Your task to perform on an android device: toggle sleep mode Image 0: 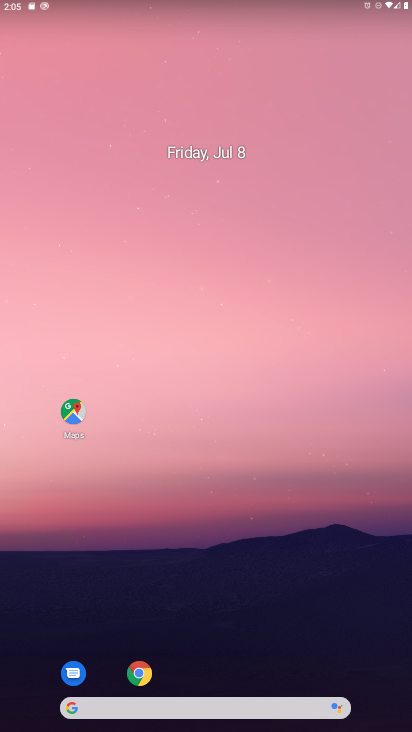
Step 0: drag from (389, 693) to (331, 193)
Your task to perform on an android device: toggle sleep mode Image 1: 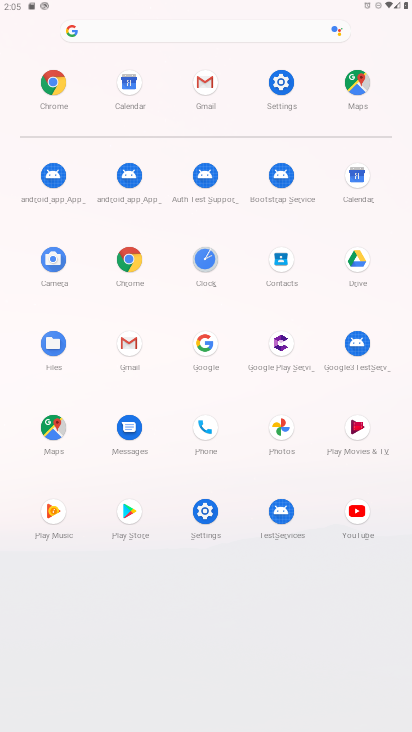
Step 1: click (284, 85)
Your task to perform on an android device: toggle sleep mode Image 2: 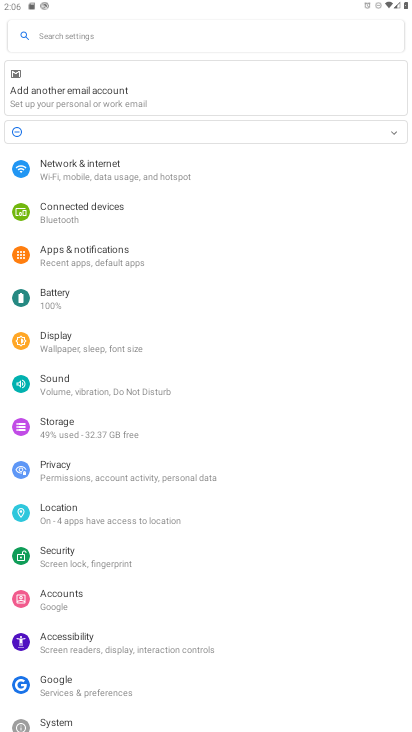
Step 2: drag from (289, 656) to (279, 356)
Your task to perform on an android device: toggle sleep mode Image 3: 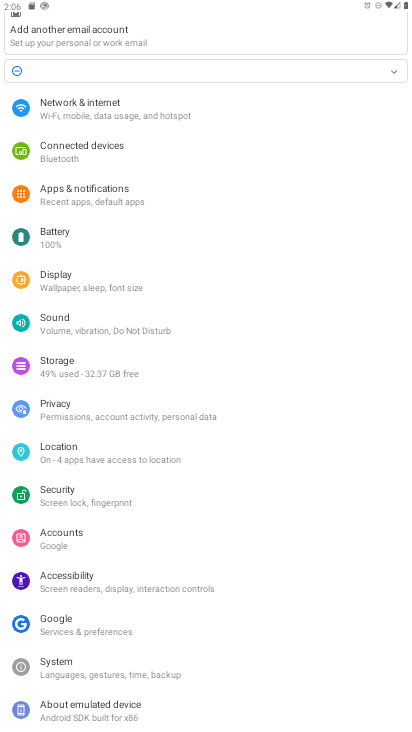
Step 3: click (52, 275)
Your task to perform on an android device: toggle sleep mode Image 4: 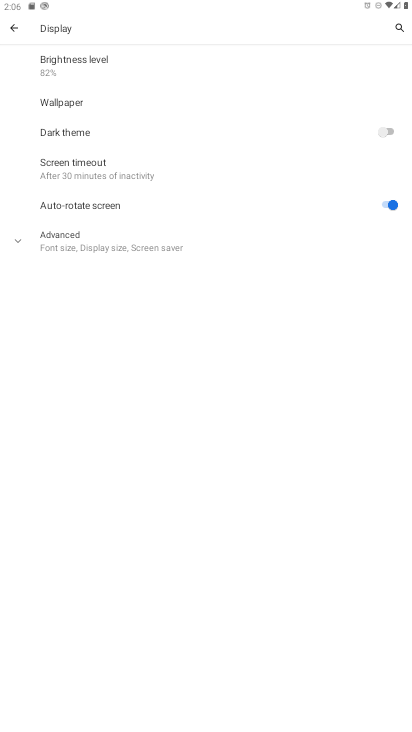
Step 4: click (61, 169)
Your task to perform on an android device: toggle sleep mode Image 5: 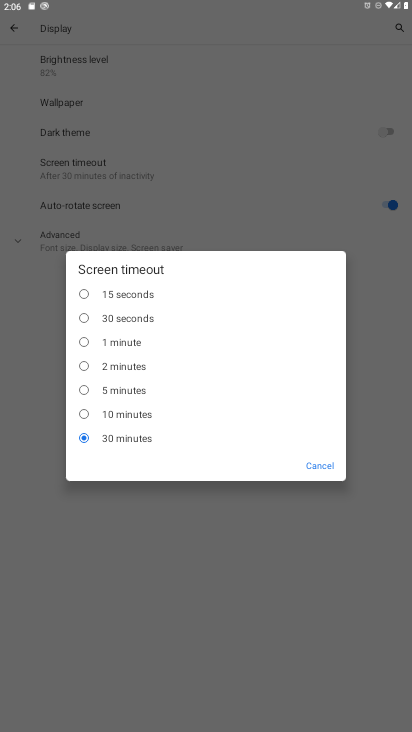
Step 5: click (111, 368)
Your task to perform on an android device: toggle sleep mode Image 6: 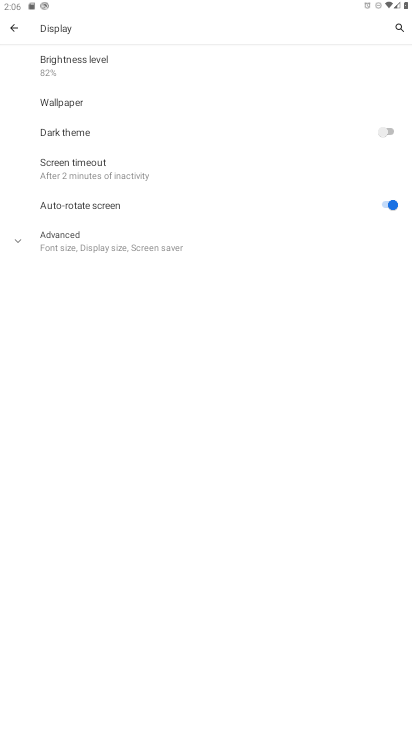
Step 6: task complete